Your task to perform on an android device: Open calendar and show me the third week of next month Image 0: 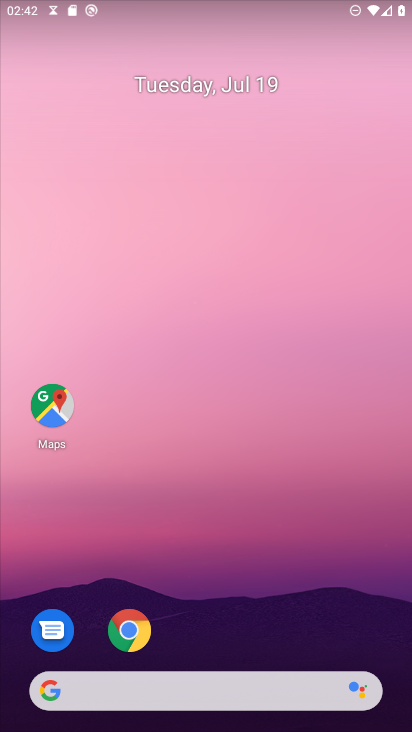
Step 0: drag from (143, 695) to (254, 31)
Your task to perform on an android device: Open calendar and show me the third week of next month Image 1: 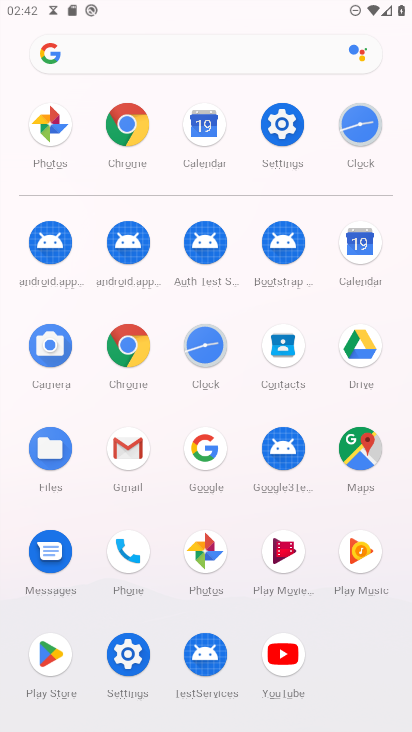
Step 1: click (200, 128)
Your task to perform on an android device: Open calendar and show me the third week of next month Image 2: 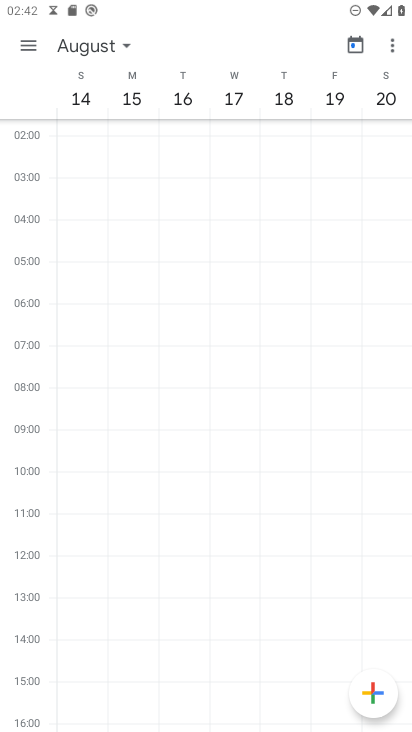
Step 2: click (92, 41)
Your task to perform on an android device: Open calendar and show me the third week of next month Image 3: 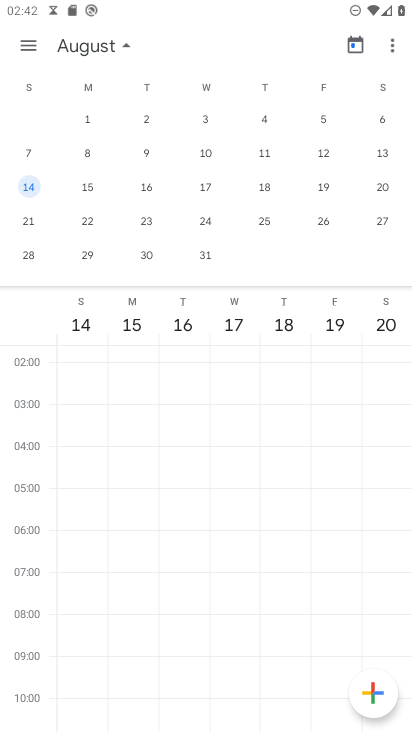
Step 3: task complete